Your task to perform on an android device: Open calendar and show me the fourth week of next month Image 0: 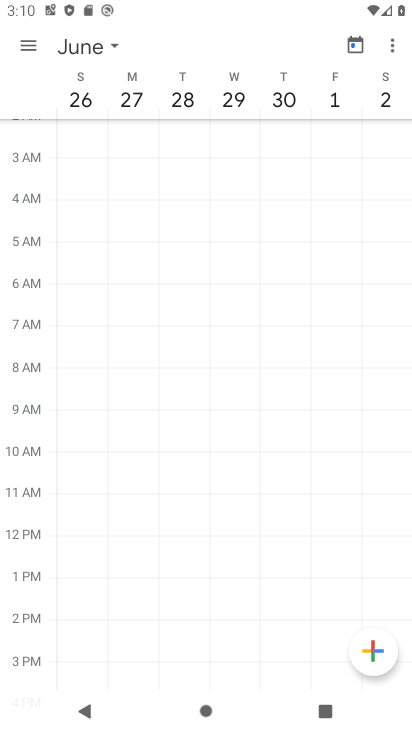
Step 0: task complete